Your task to perform on an android device: Open Maps and search for coffee Image 0: 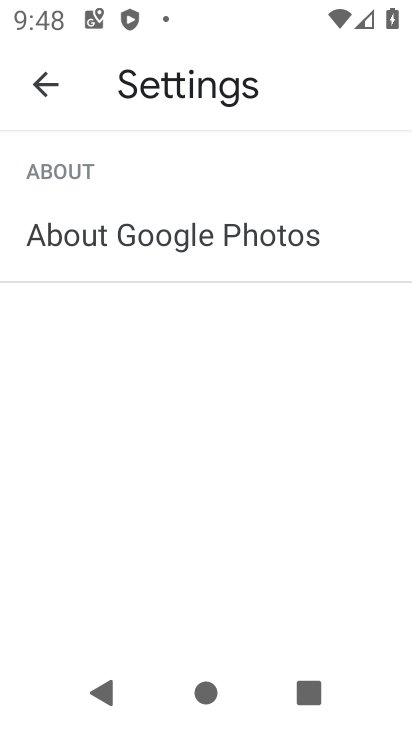
Step 0: press home button
Your task to perform on an android device: Open Maps and search for coffee Image 1: 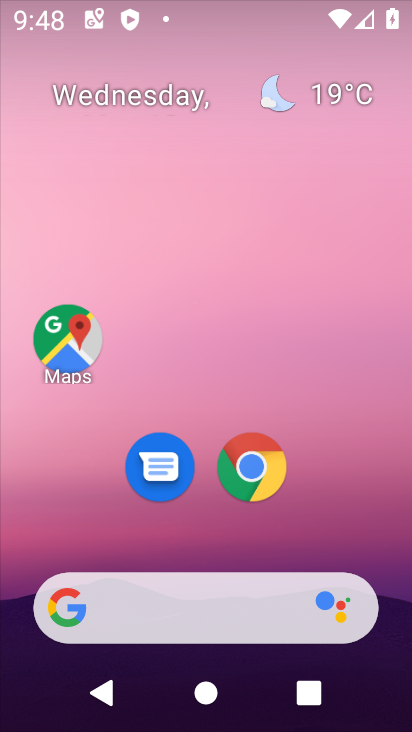
Step 1: click (79, 325)
Your task to perform on an android device: Open Maps and search for coffee Image 2: 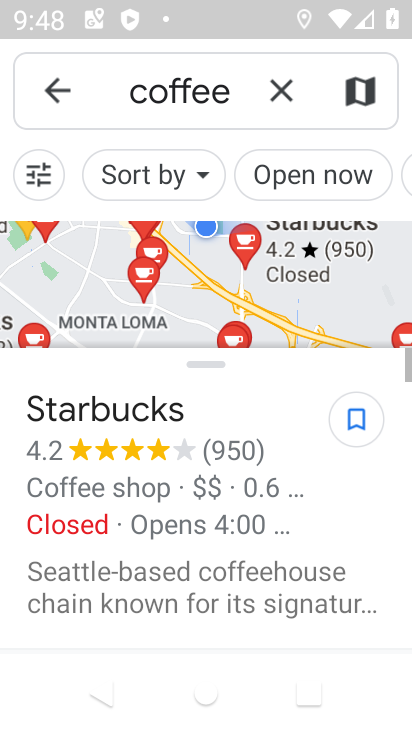
Step 2: task complete